Your task to perform on an android device: Open Chrome and go to the settings page Image 0: 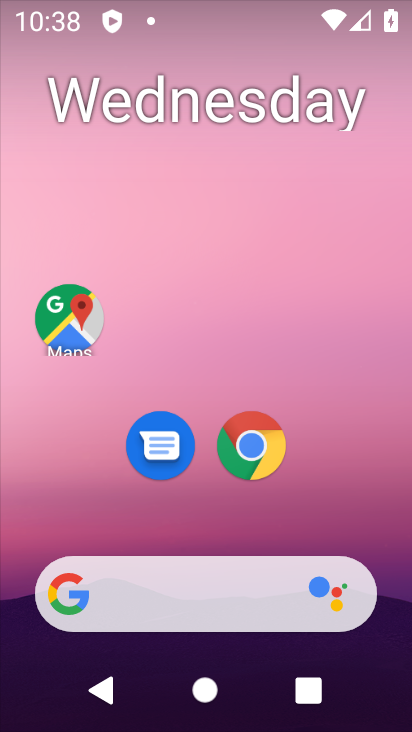
Step 0: click (260, 437)
Your task to perform on an android device: Open Chrome and go to the settings page Image 1: 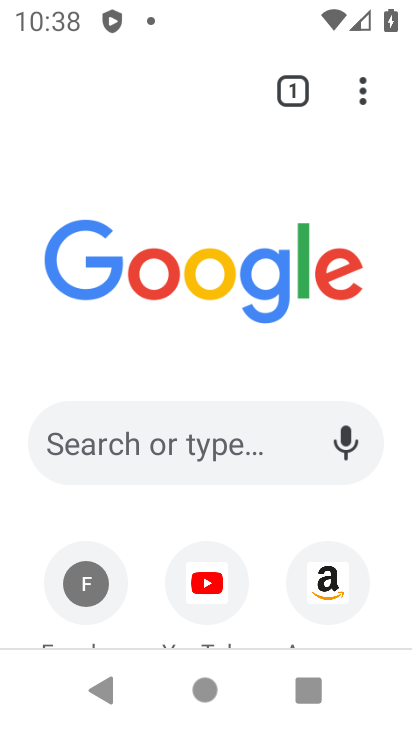
Step 1: task complete